Your task to perform on an android device: toggle translation in the chrome app Image 0: 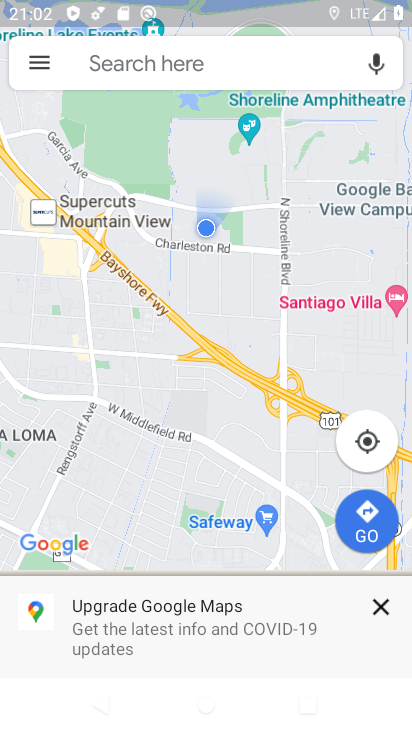
Step 0: press home button
Your task to perform on an android device: toggle translation in the chrome app Image 1: 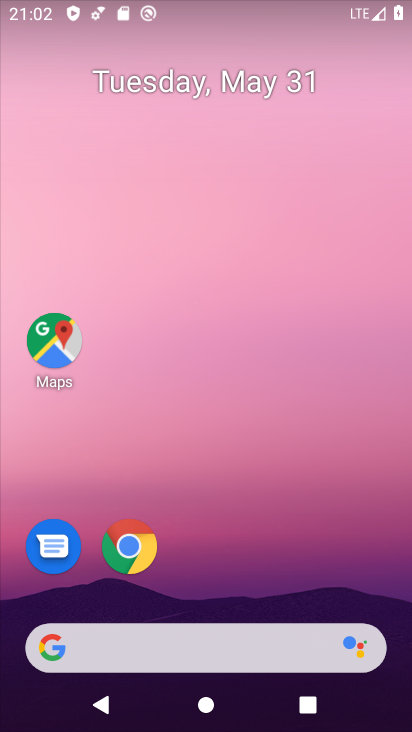
Step 1: click (120, 543)
Your task to perform on an android device: toggle translation in the chrome app Image 2: 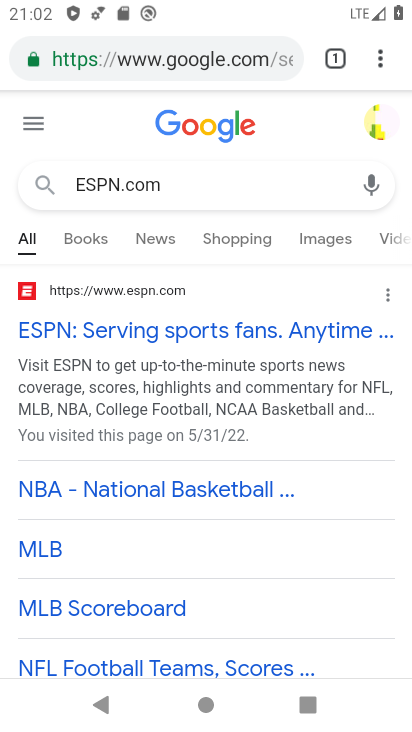
Step 2: click (378, 50)
Your task to perform on an android device: toggle translation in the chrome app Image 3: 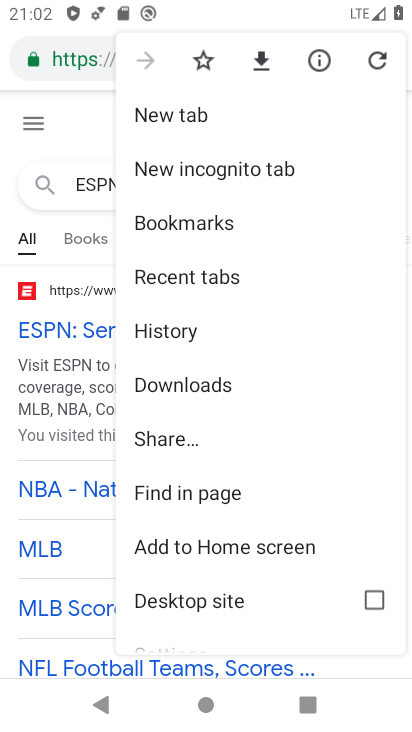
Step 3: drag from (288, 606) to (325, 297)
Your task to perform on an android device: toggle translation in the chrome app Image 4: 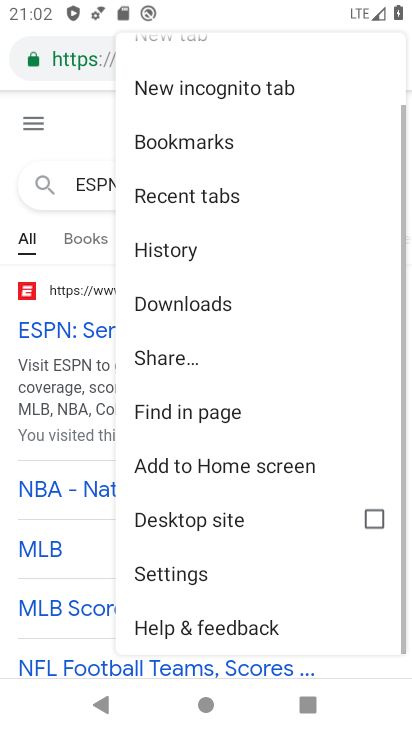
Step 4: click (146, 588)
Your task to perform on an android device: toggle translation in the chrome app Image 5: 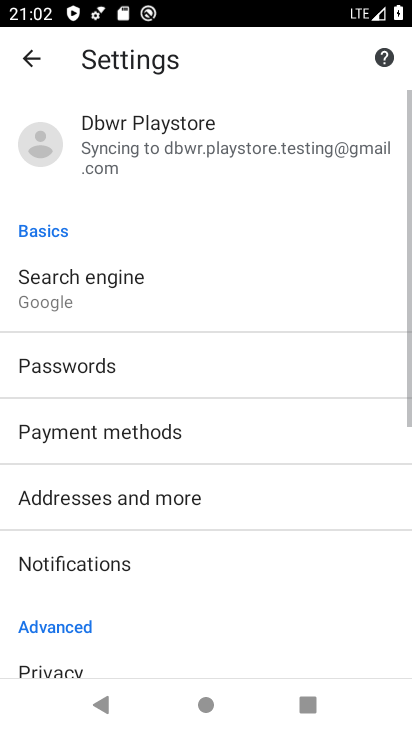
Step 5: drag from (251, 646) to (286, 303)
Your task to perform on an android device: toggle translation in the chrome app Image 6: 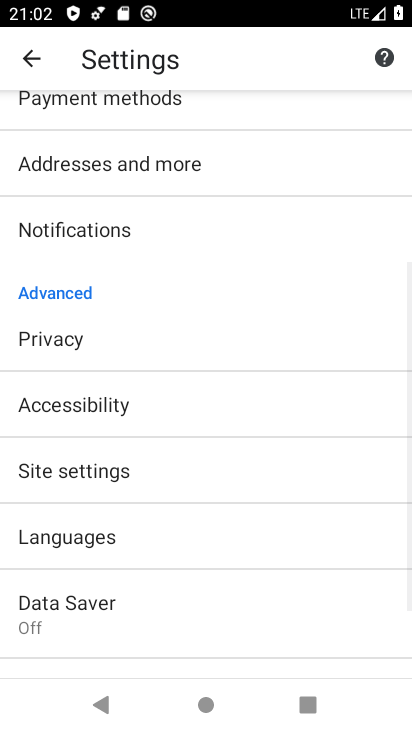
Step 6: click (69, 534)
Your task to perform on an android device: toggle translation in the chrome app Image 7: 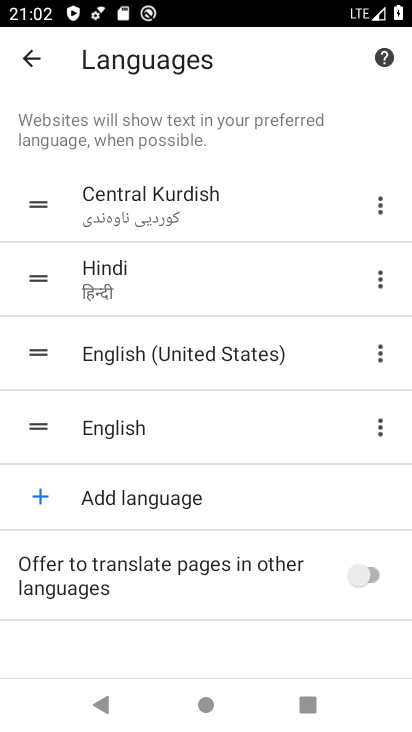
Step 7: click (372, 576)
Your task to perform on an android device: toggle translation in the chrome app Image 8: 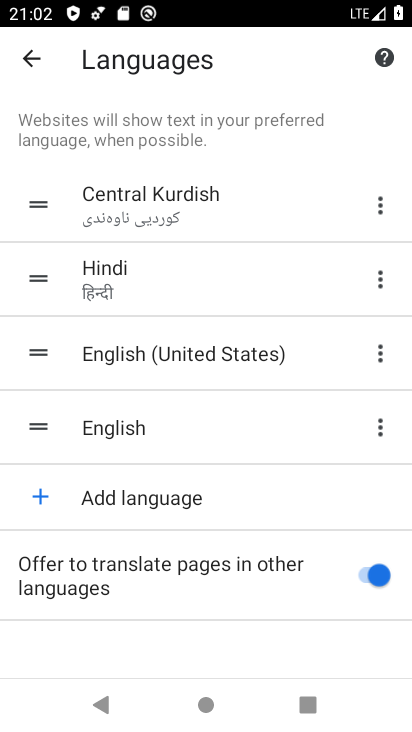
Step 8: task complete